Your task to perform on an android device: delete a single message in the gmail app Image 0: 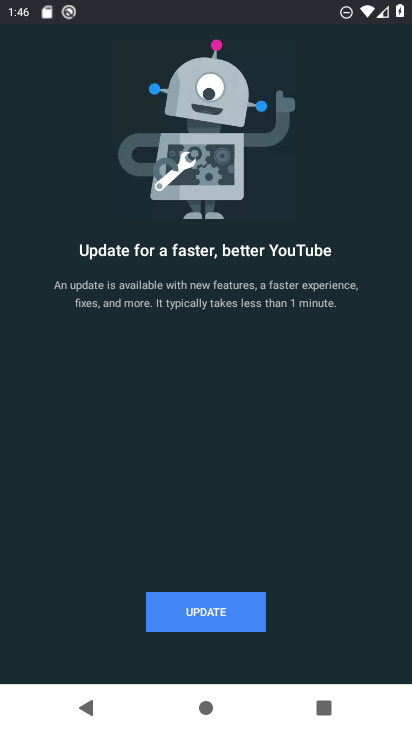
Step 0: press home button
Your task to perform on an android device: delete a single message in the gmail app Image 1: 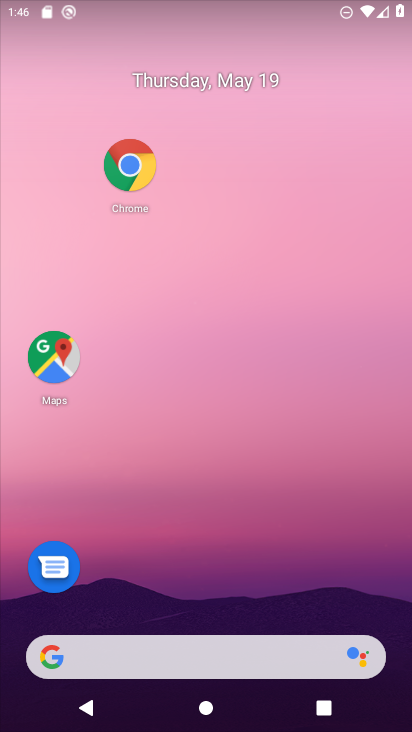
Step 1: drag from (279, 509) to (200, 0)
Your task to perform on an android device: delete a single message in the gmail app Image 2: 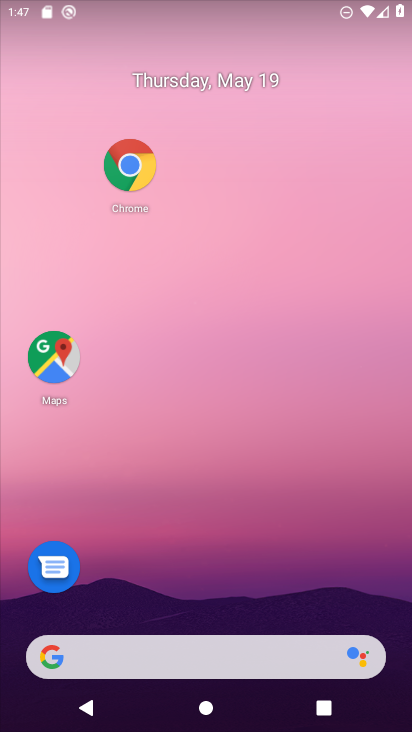
Step 2: drag from (139, 521) to (209, 62)
Your task to perform on an android device: delete a single message in the gmail app Image 3: 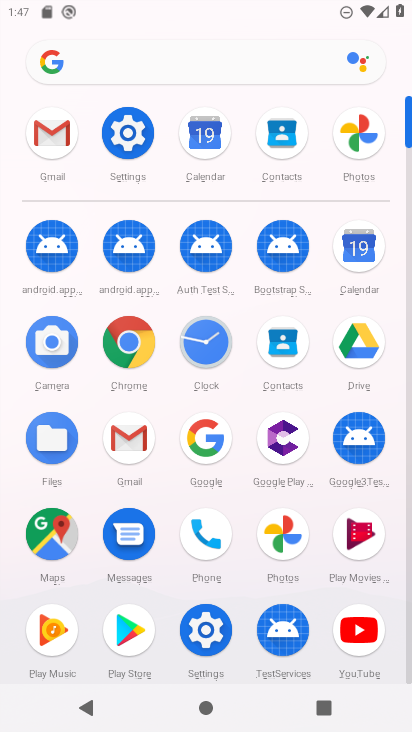
Step 3: click (120, 443)
Your task to perform on an android device: delete a single message in the gmail app Image 4: 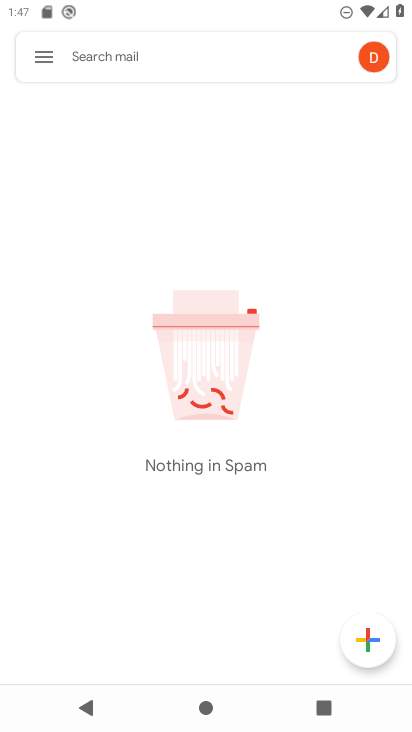
Step 4: click (15, 57)
Your task to perform on an android device: delete a single message in the gmail app Image 5: 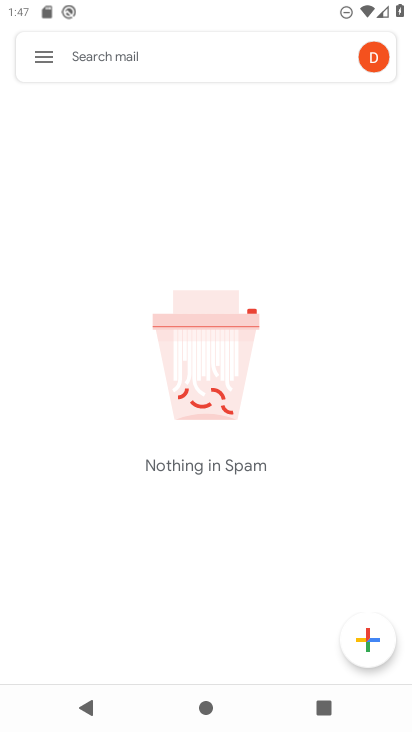
Step 5: click (32, 60)
Your task to perform on an android device: delete a single message in the gmail app Image 6: 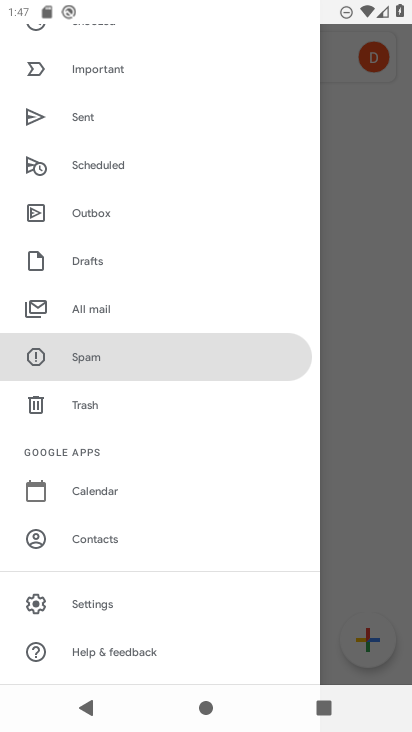
Step 6: drag from (163, 330) to (183, 213)
Your task to perform on an android device: delete a single message in the gmail app Image 7: 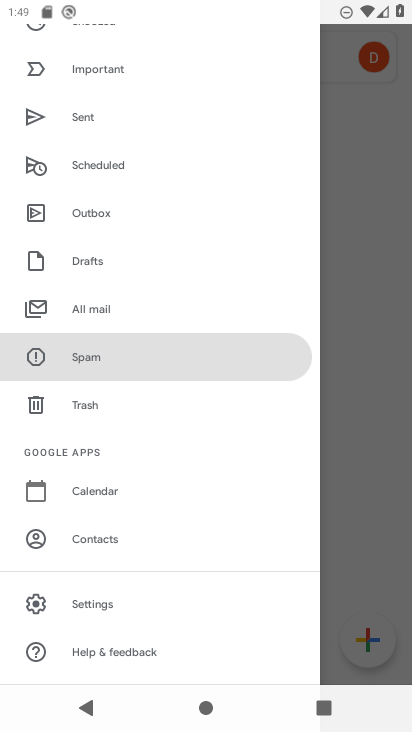
Step 7: press home button
Your task to perform on an android device: delete a single message in the gmail app Image 8: 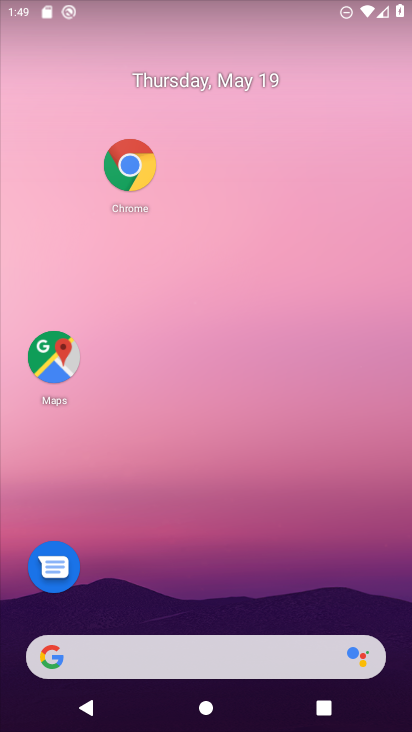
Step 8: drag from (229, 518) to (318, 61)
Your task to perform on an android device: delete a single message in the gmail app Image 9: 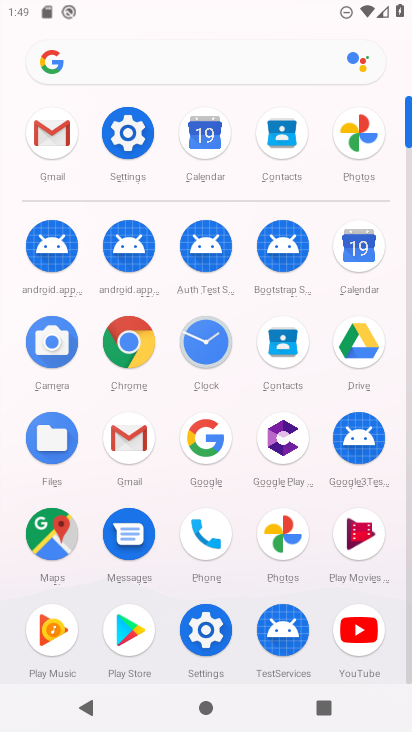
Step 9: click (49, 123)
Your task to perform on an android device: delete a single message in the gmail app Image 10: 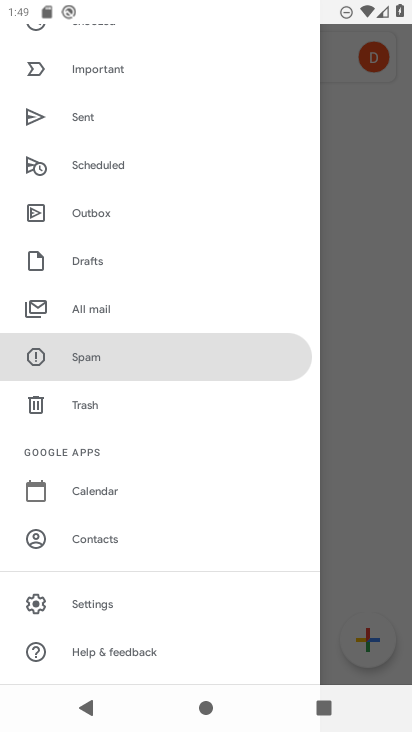
Step 10: click (123, 301)
Your task to perform on an android device: delete a single message in the gmail app Image 11: 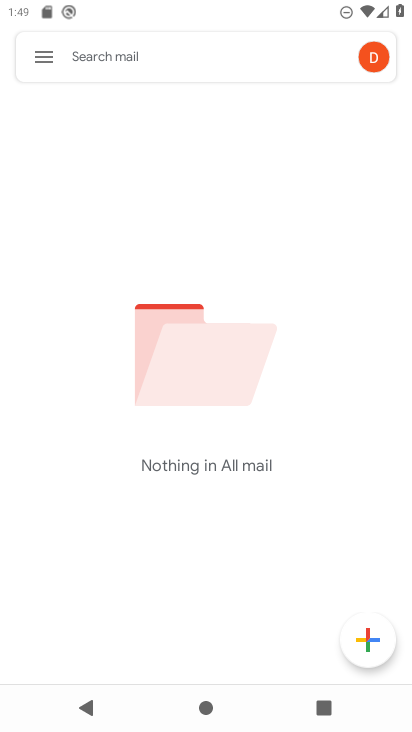
Step 11: click (45, 45)
Your task to perform on an android device: delete a single message in the gmail app Image 12: 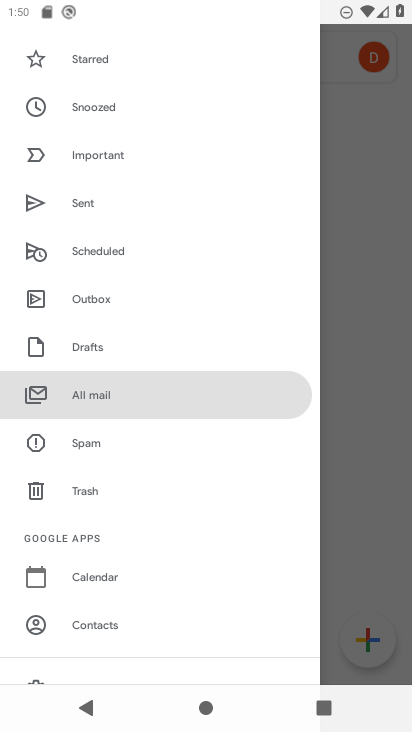
Step 12: task complete